Your task to perform on an android device: Check the settings for the Amazon Shopping app Image 0: 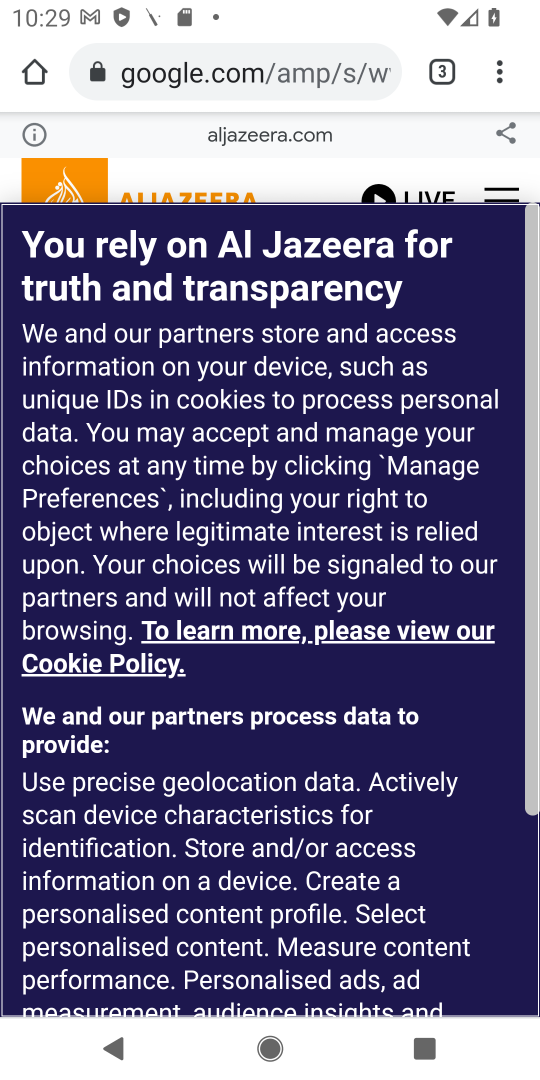
Step 0: press home button
Your task to perform on an android device: Check the settings for the Amazon Shopping app Image 1: 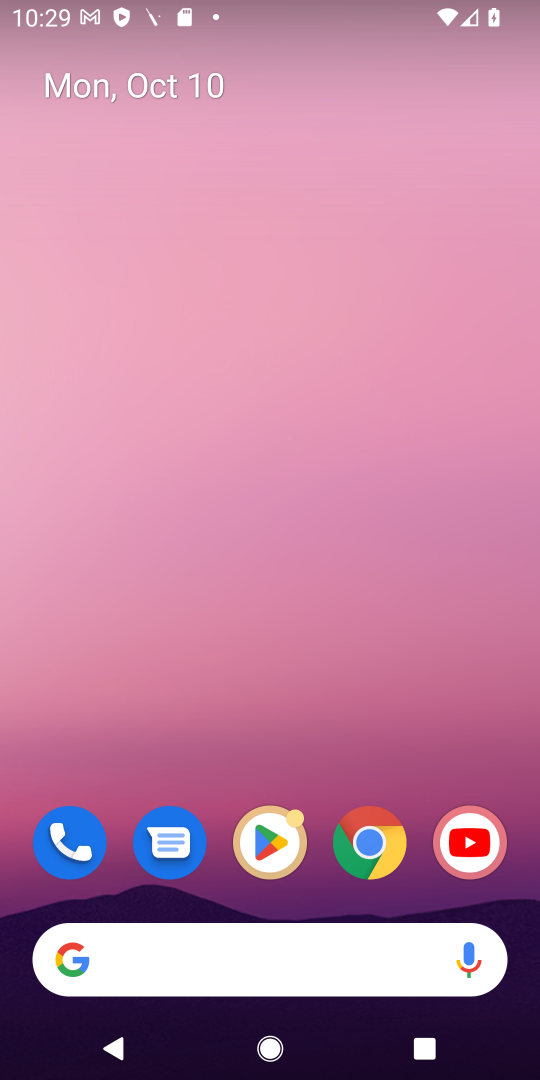
Step 1: task complete